Your task to perform on an android device: open app "Google Play Music" (install if not already installed) Image 0: 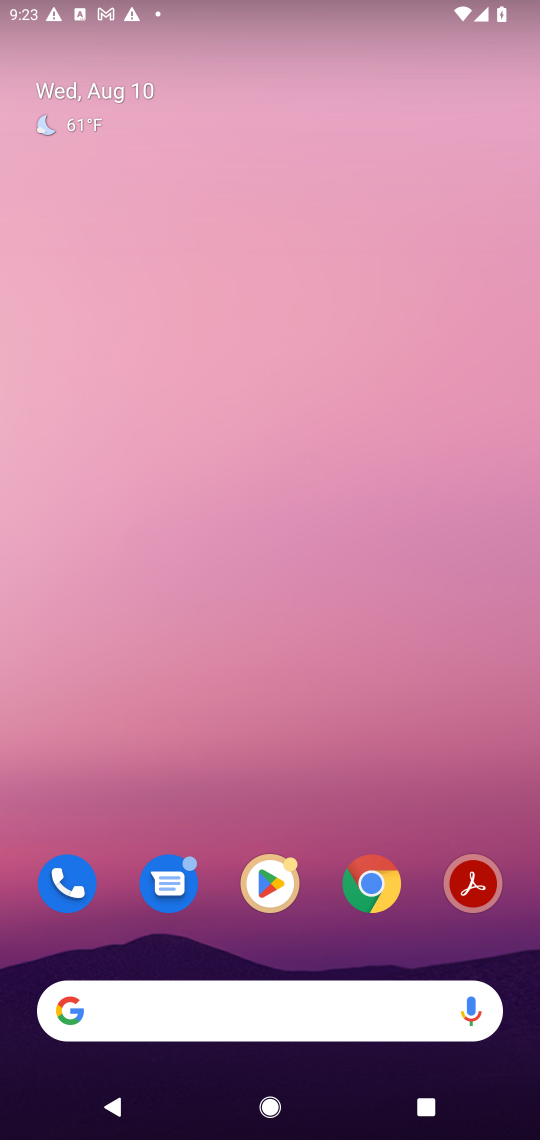
Step 0: click (264, 876)
Your task to perform on an android device: open app "Google Play Music" (install if not already installed) Image 1: 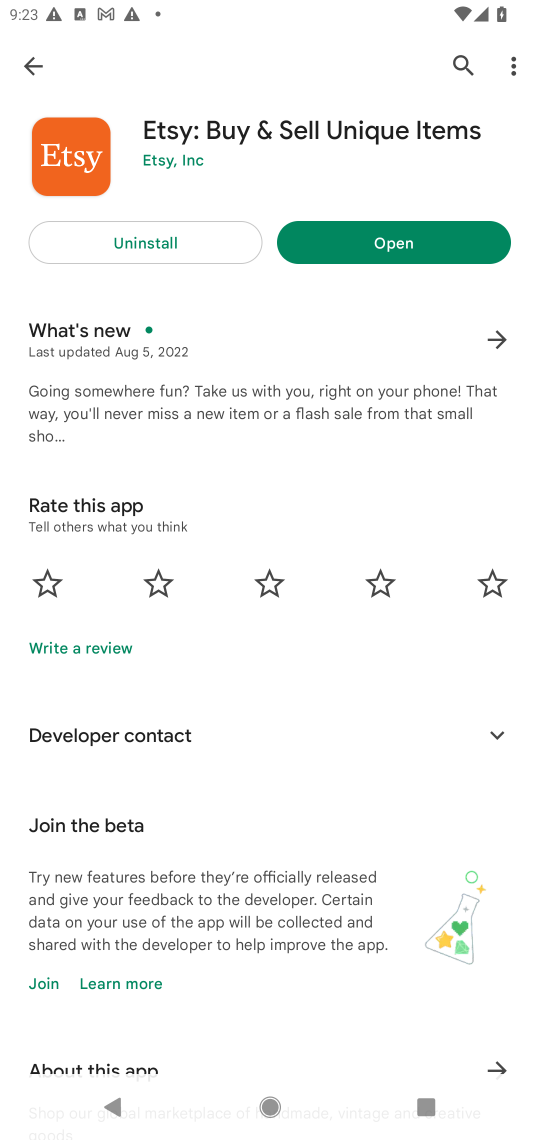
Step 1: click (454, 63)
Your task to perform on an android device: open app "Google Play Music" (install if not already installed) Image 2: 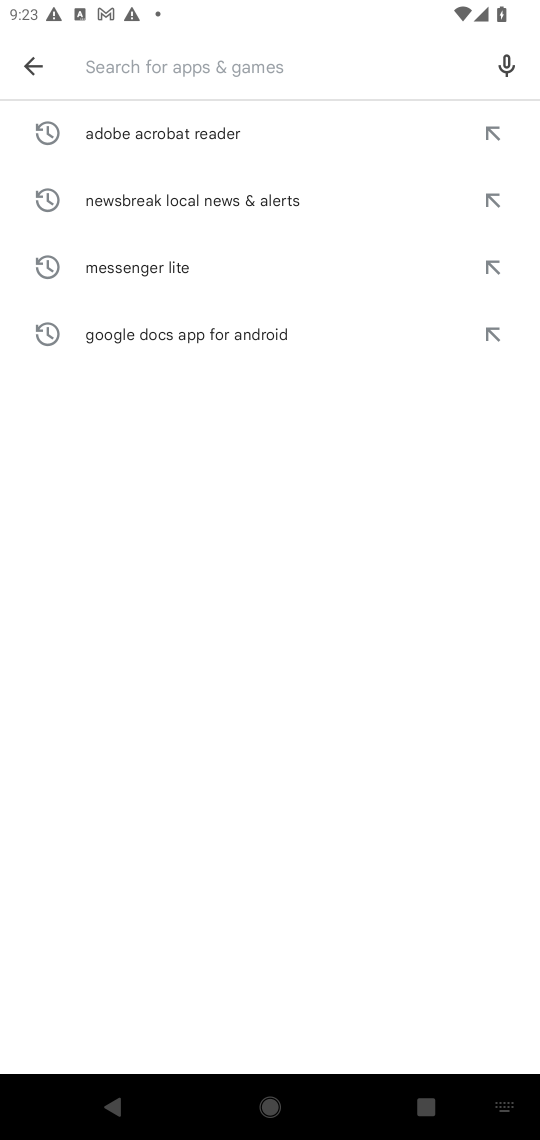
Step 2: type "Google Play Music"
Your task to perform on an android device: open app "Google Play Music" (install if not already installed) Image 3: 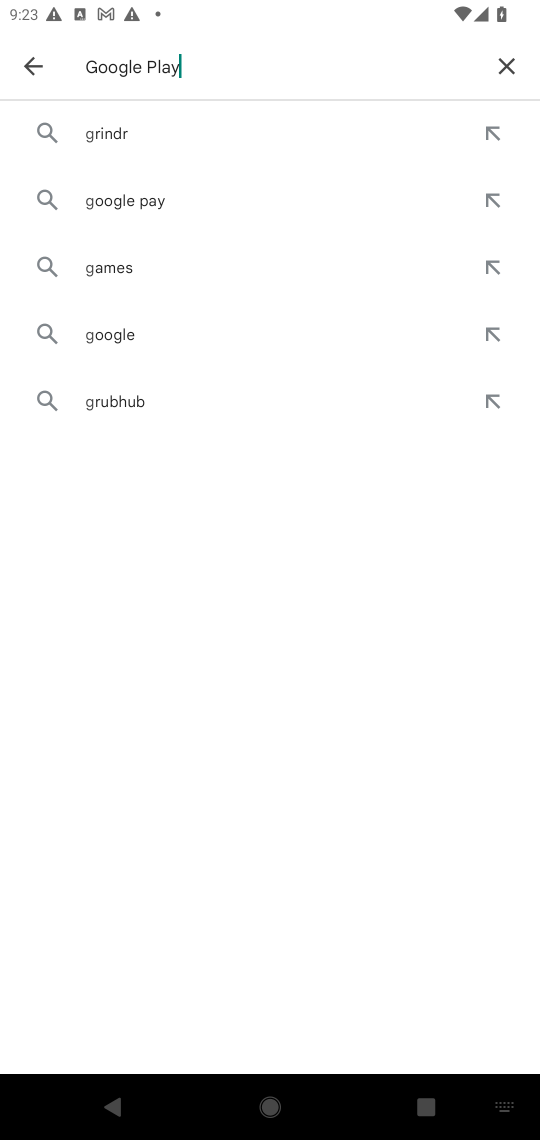
Step 3: type ""
Your task to perform on an android device: open app "Google Play Music" (install if not already installed) Image 4: 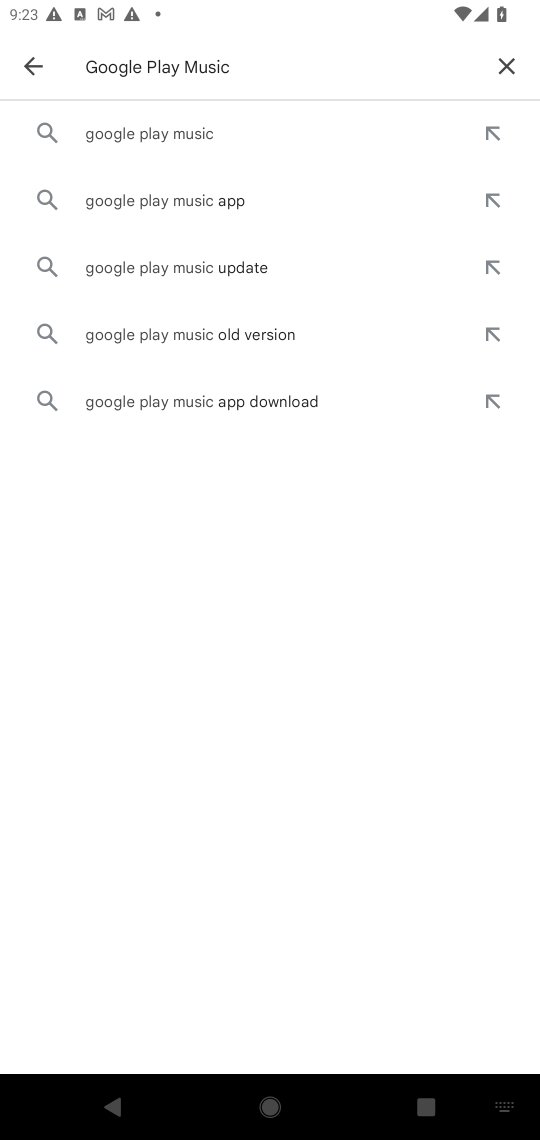
Step 4: click (234, 127)
Your task to perform on an android device: open app "Google Play Music" (install if not already installed) Image 5: 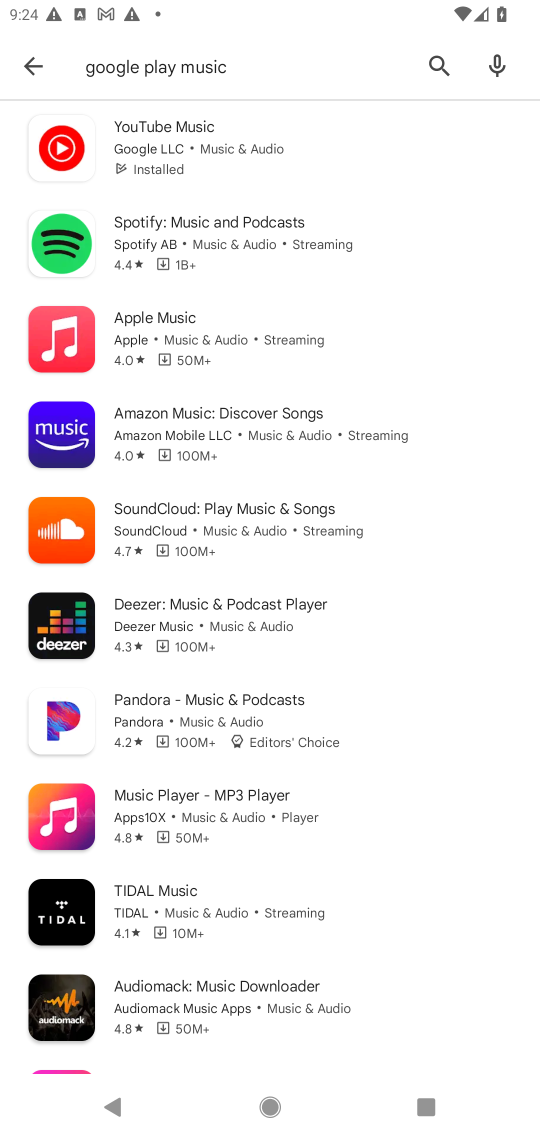
Step 5: task complete